Your task to perform on an android device: open app "Flipkart Online Shopping App" (install if not already installed) Image 0: 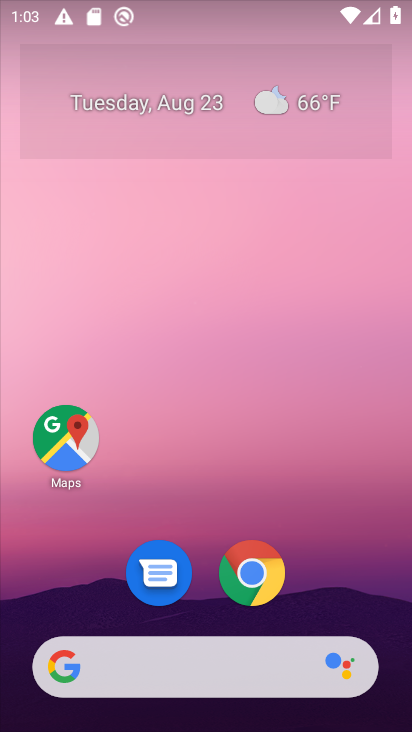
Step 0: drag from (207, 512) to (210, 139)
Your task to perform on an android device: open app "Flipkart Online Shopping App" (install if not already installed) Image 1: 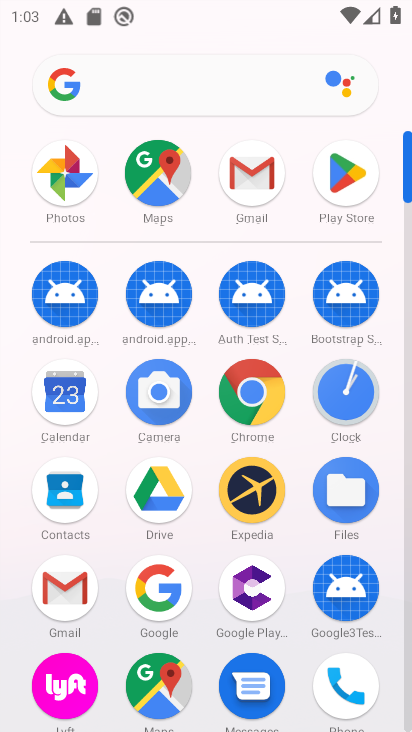
Step 1: click (330, 173)
Your task to perform on an android device: open app "Flipkart Online Shopping App" (install if not already installed) Image 2: 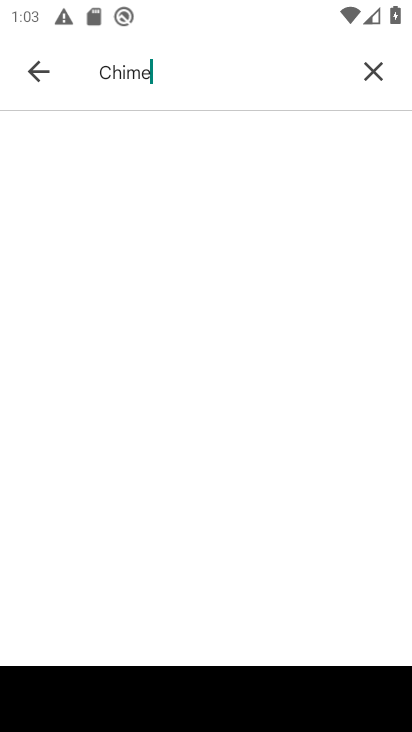
Step 2: task complete